Your task to perform on an android device: Open the calendar app, open the side menu, and click the "Day" option Image 0: 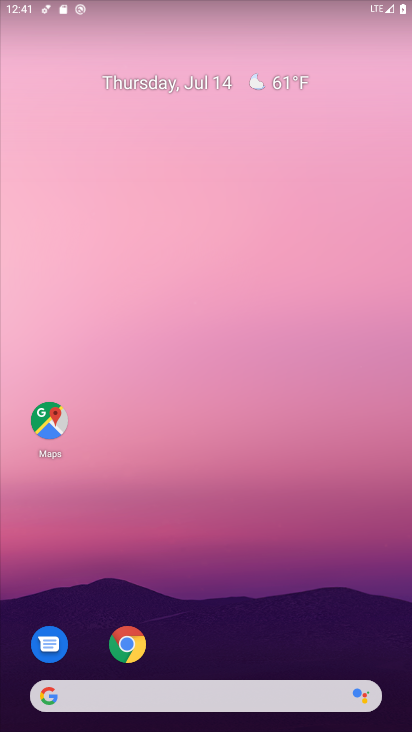
Step 0: drag from (264, 637) to (249, 363)
Your task to perform on an android device: Open the calendar app, open the side menu, and click the "Day" option Image 1: 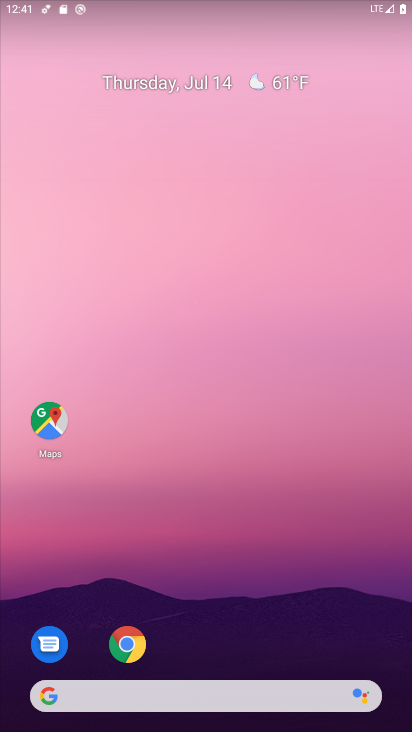
Step 1: drag from (248, 475) to (381, 134)
Your task to perform on an android device: Open the calendar app, open the side menu, and click the "Day" option Image 2: 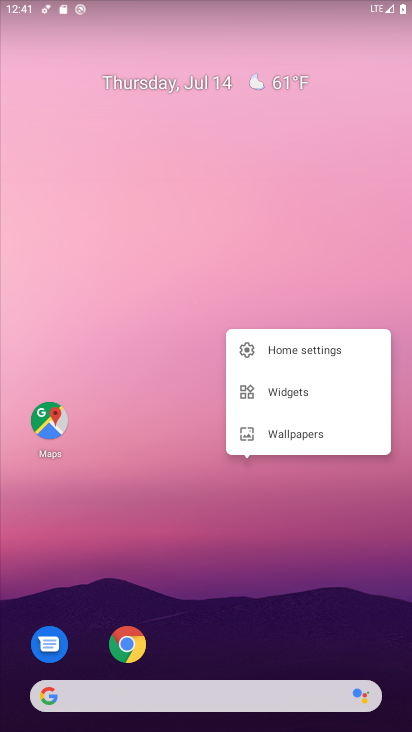
Step 2: click (328, 201)
Your task to perform on an android device: Open the calendar app, open the side menu, and click the "Day" option Image 3: 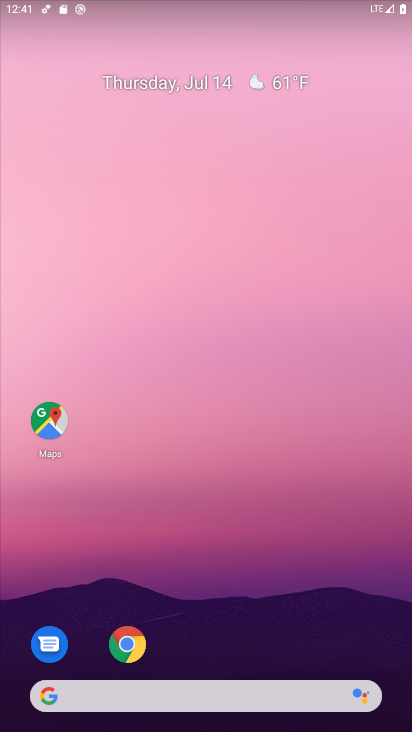
Step 3: drag from (259, 658) to (245, 144)
Your task to perform on an android device: Open the calendar app, open the side menu, and click the "Day" option Image 4: 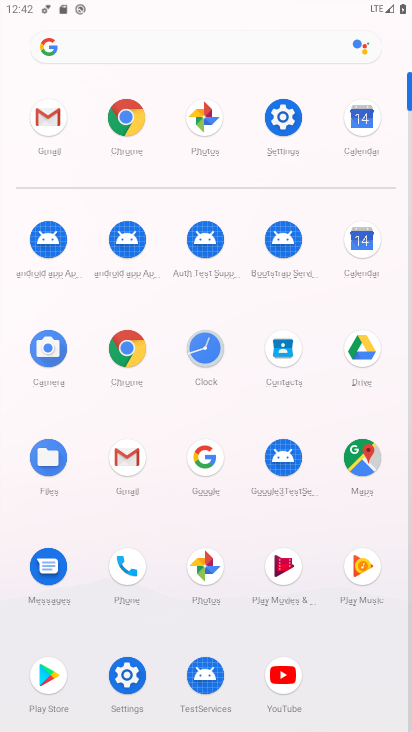
Step 4: click (366, 112)
Your task to perform on an android device: Open the calendar app, open the side menu, and click the "Day" option Image 5: 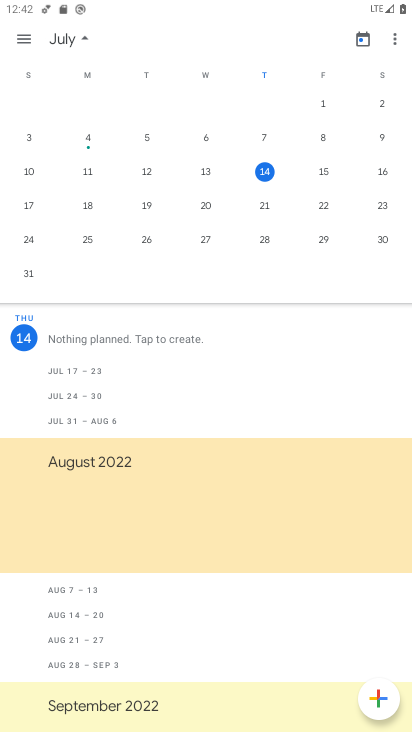
Step 5: click (24, 41)
Your task to perform on an android device: Open the calendar app, open the side menu, and click the "Day" option Image 6: 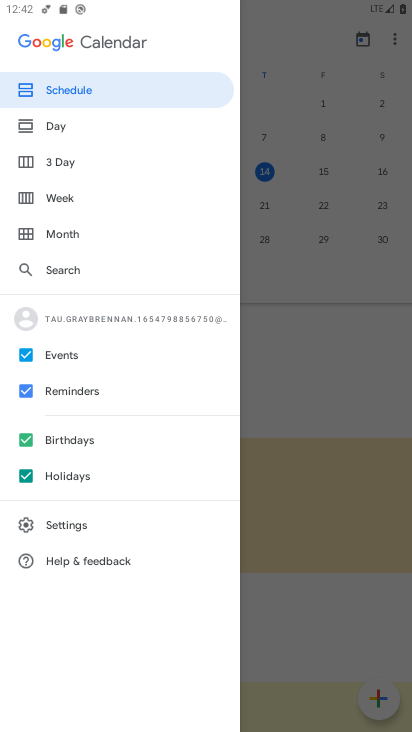
Step 6: click (72, 130)
Your task to perform on an android device: Open the calendar app, open the side menu, and click the "Day" option Image 7: 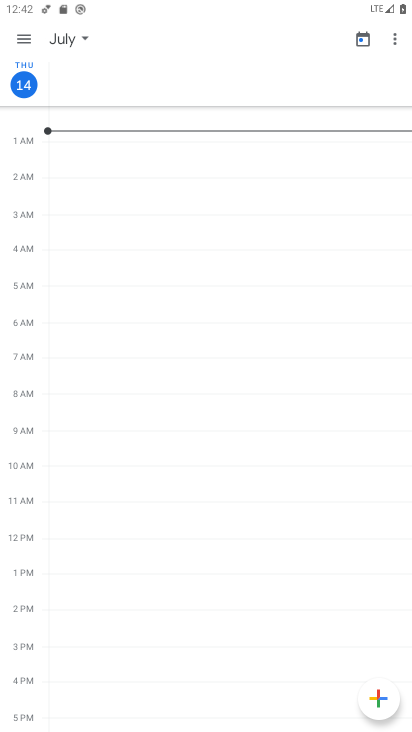
Step 7: task complete